Your task to perform on an android device: change the upload size in google photos Image 0: 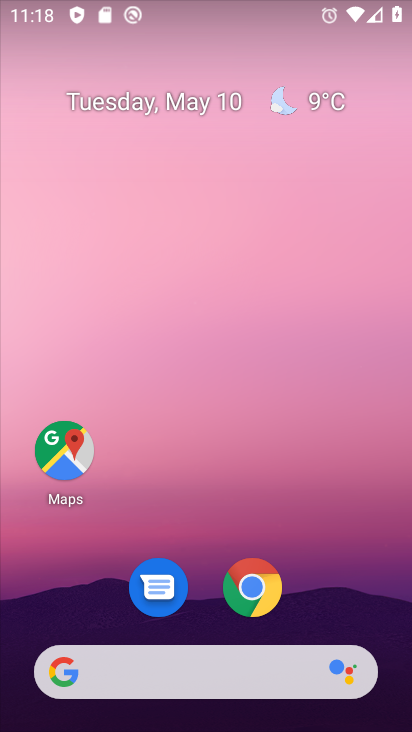
Step 0: drag from (356, 617) to (356, 0)
Your task to perform on an android device: change the upload size in google photos Image 1: 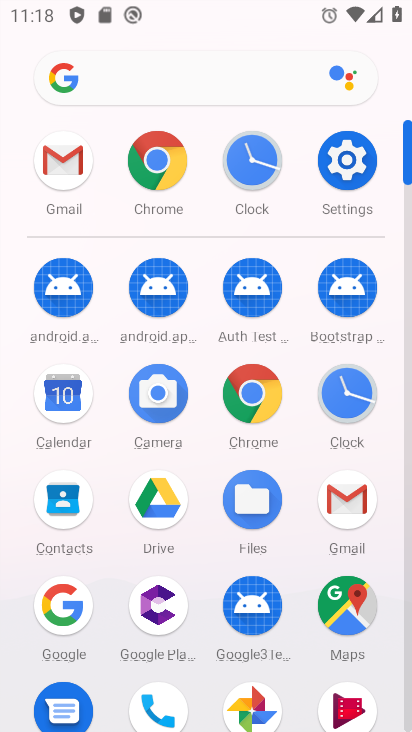
Step 1: click (245, 694)
Your task to perform on an android device: change the upload size in google photos Image 2: 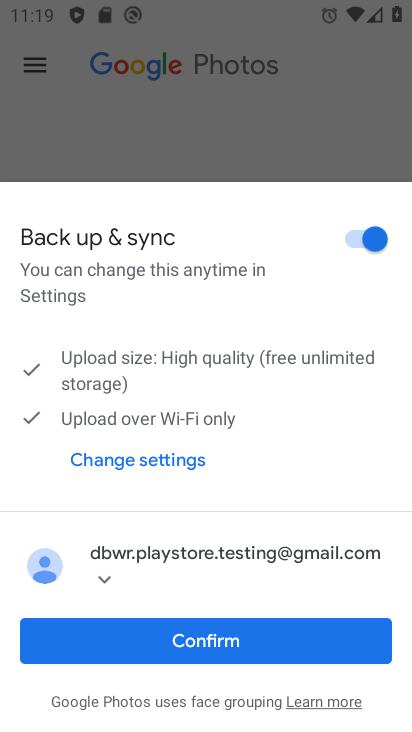
Step 2: click (208, 649)
Your task to perform on an android device: change the upload size in google photos Image 3: 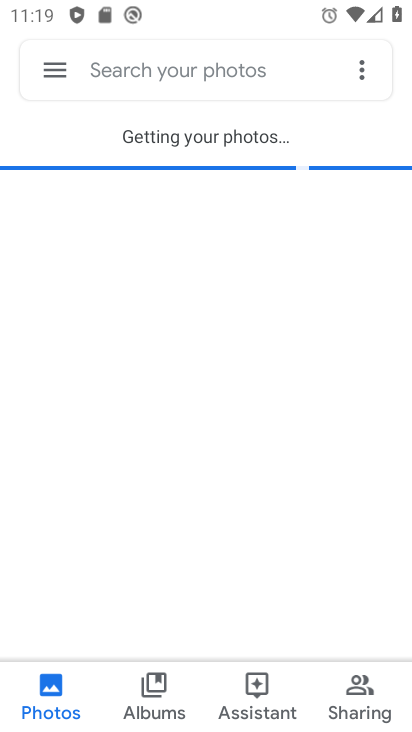
Step 3: click (55, 74)
Your task to perform on an android device: change the upload size in google photos Image 4: 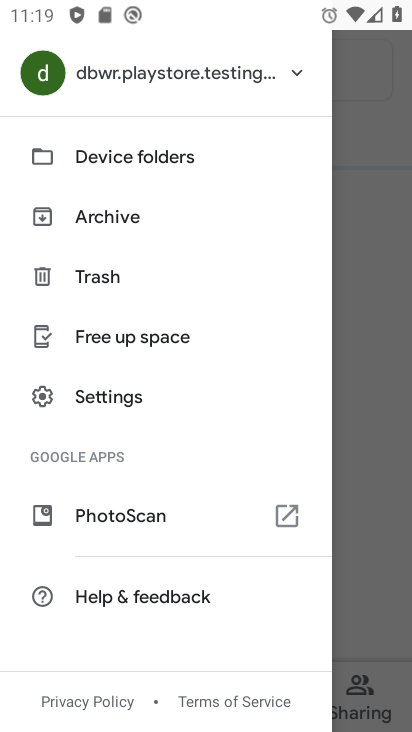
Step 4: click (108, 388)
Your task to perform on an android device: change the upload size in google photos Image 5: 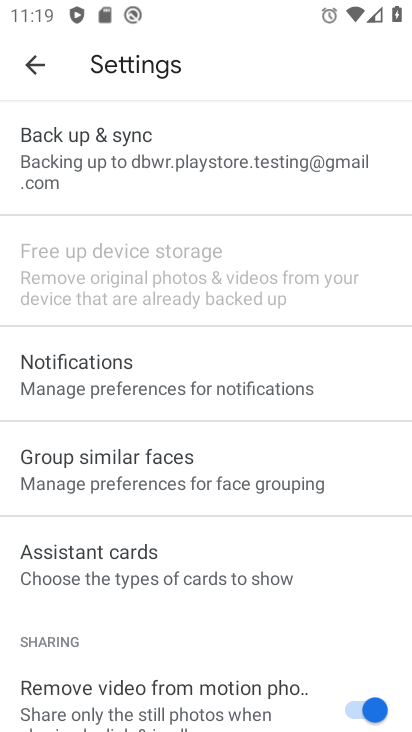
Step 5: click (97, 159)
Your task to perform on an android device: change the upload size in google photos Image 6: 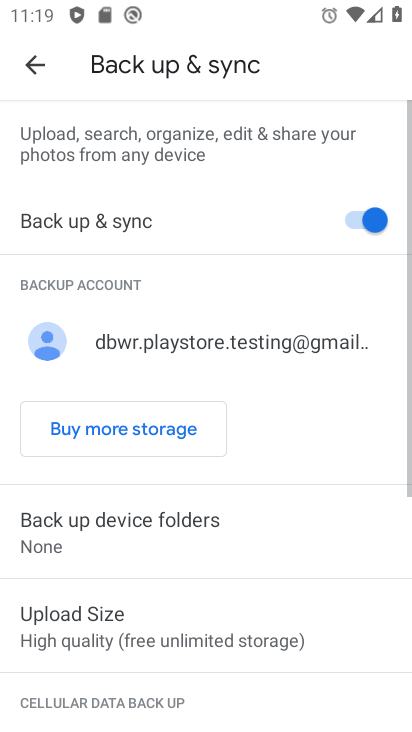
Step 6: drag from (186, 490) to (178, 304)
Your task to perform on an android device: change the upload size in google photos Image 7: 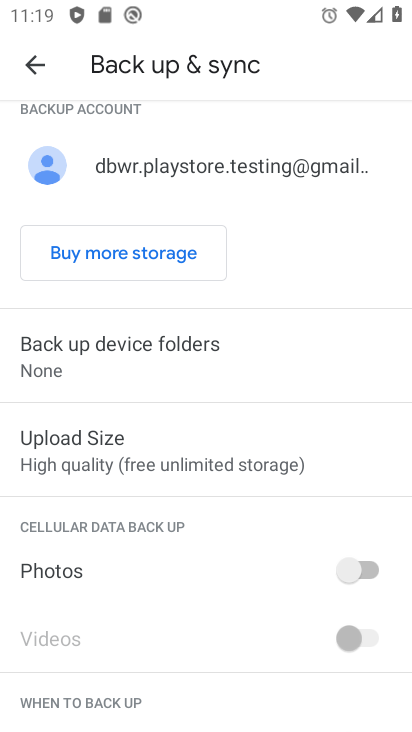
Step 7: click (97, 456)
Your task to perform on an android device: change the upload size in google photos Image 8: 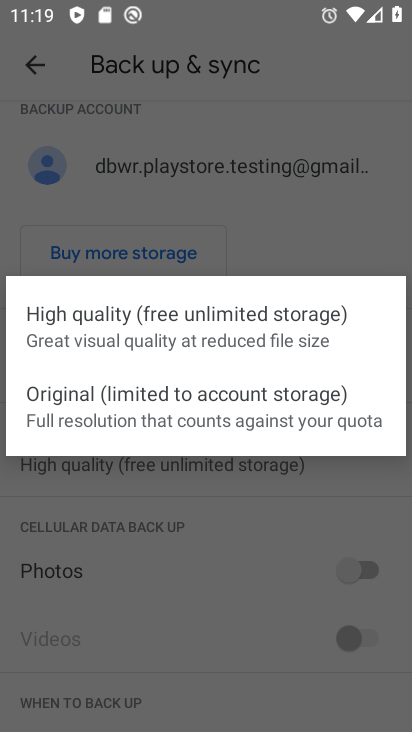
Step 8: click (87, 424)
Your task to perform on an android device: change the upload size in google photos Image 9: 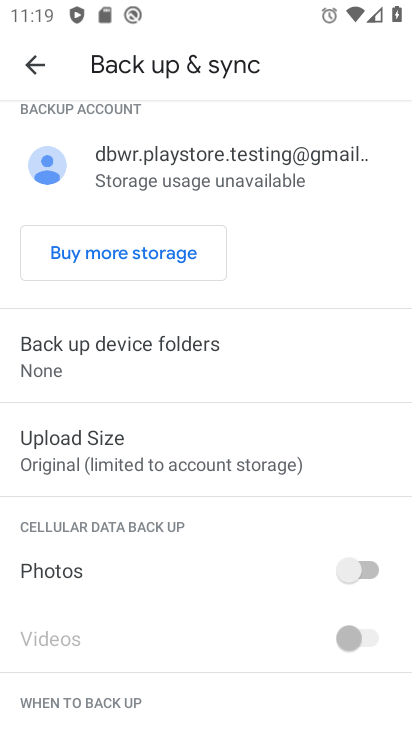
Step 9: task complete